Your task to perform on an android device: Search for sushi restaurants on Maps Image 0: 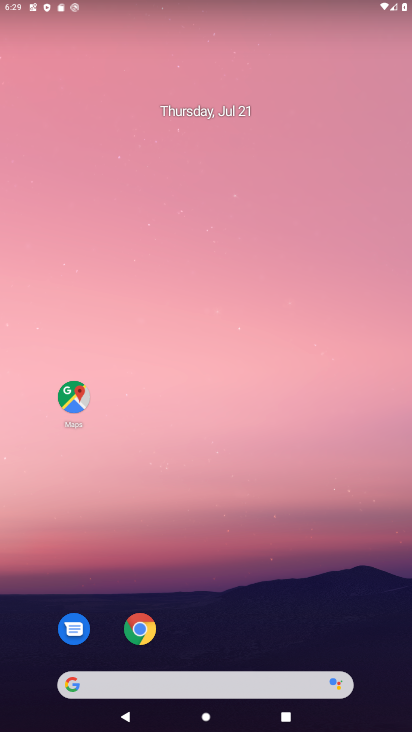
Step 0: click (72, 397)
Your task to perform on an android device: Search for sushi restaurants on Maps Image 1: 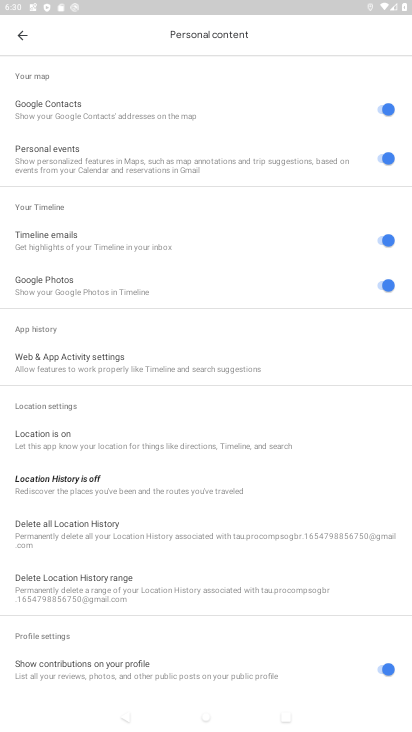
Step 1: press back button
Your task to perform on an android device: Search for sushi restaurants on Maps Image 2: 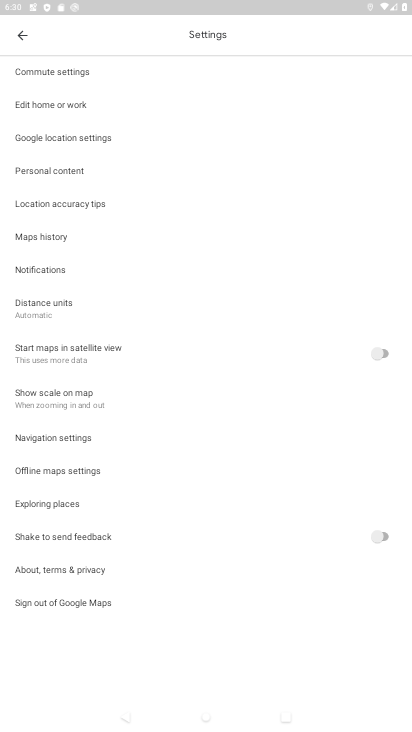
Step 2: click (19, 31)
Your task to perform on an android device: Search for sushi restaurants on Maps Image 3: 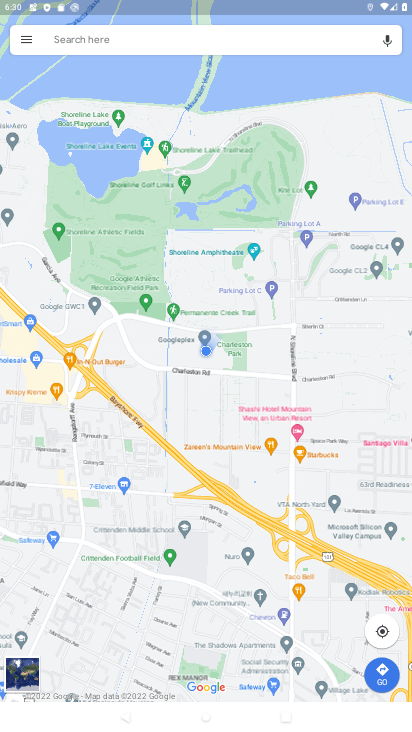
Step 3: click (185, 45)
Your task to perform on an android device: Search for sushi restaurants on Maps Image 4: 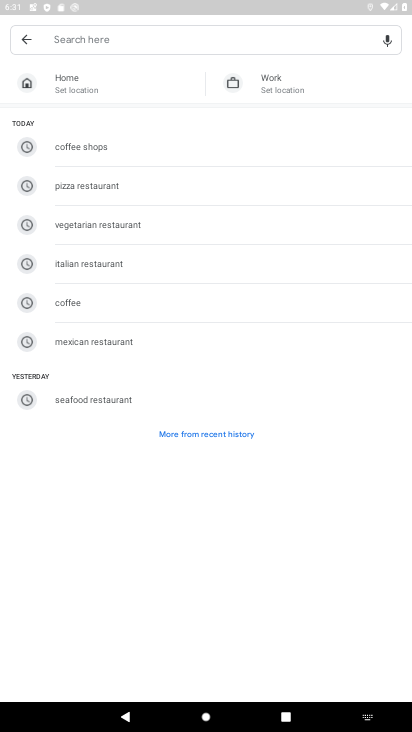
Step 4: type "sushi restaurants"
Your task to perform on an android device: Search for sushi restaurants on Maps Image 5: 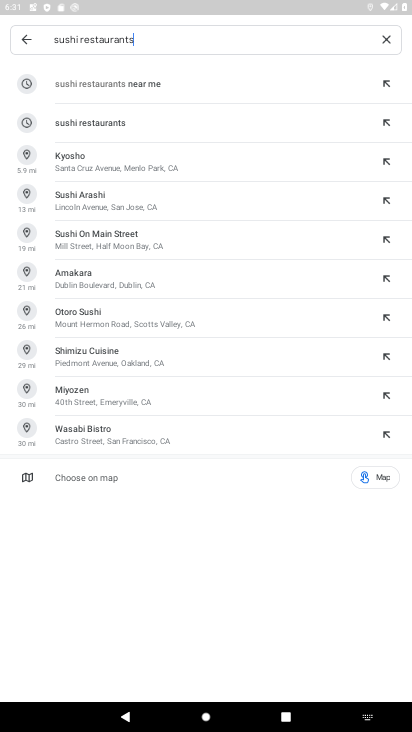
Step 5: click (102, 121)
Your task to perform on an android device: Search for sushi restaurants on Maps Image 6: 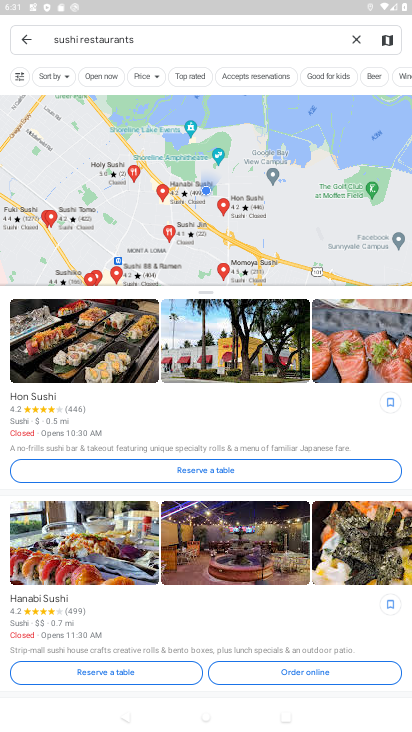
Step 6: task complete